Your task to perform on an android device: set the timer Image 0: 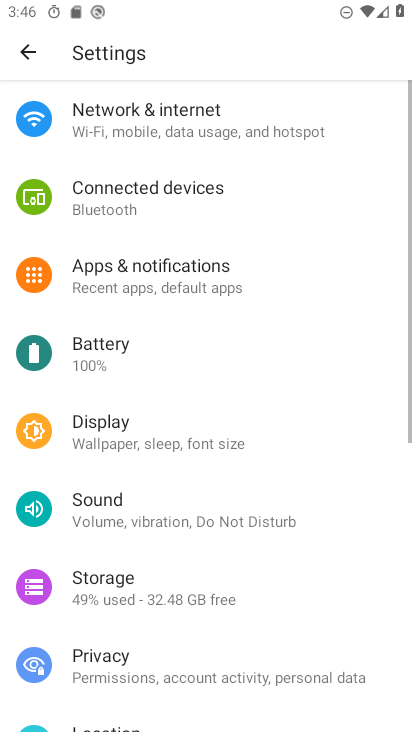
Step 0: press home button
Your task to perform on an android device: set the timer Image 1: 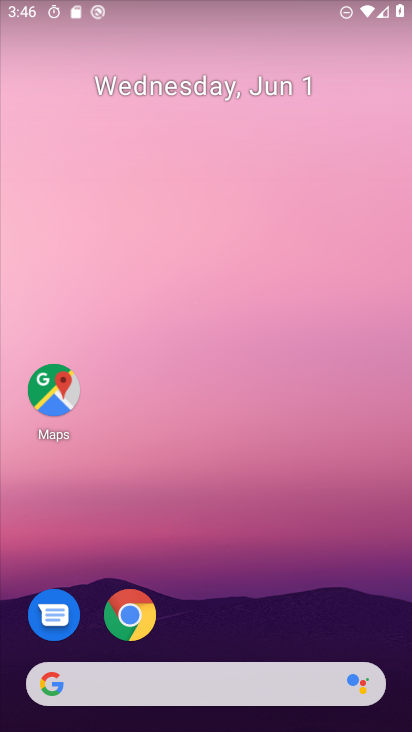
Step 1: drag from (221, 643) to (232, 46)
Your task to perform on an android device: set the timer Image 2: 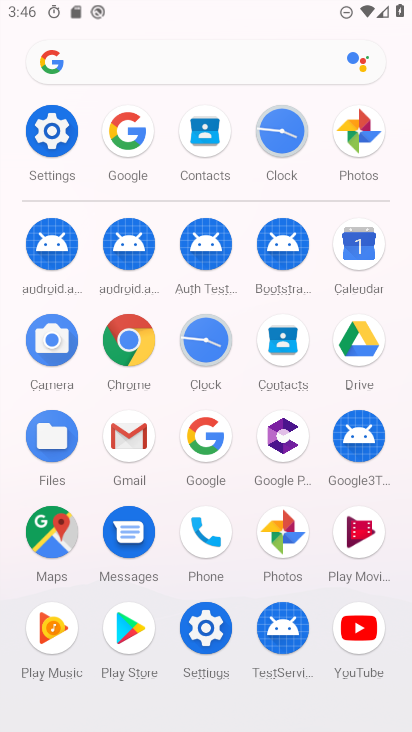
Step 2: click (208, 338)
Your task to perform on an android device: set the timer Image 3: 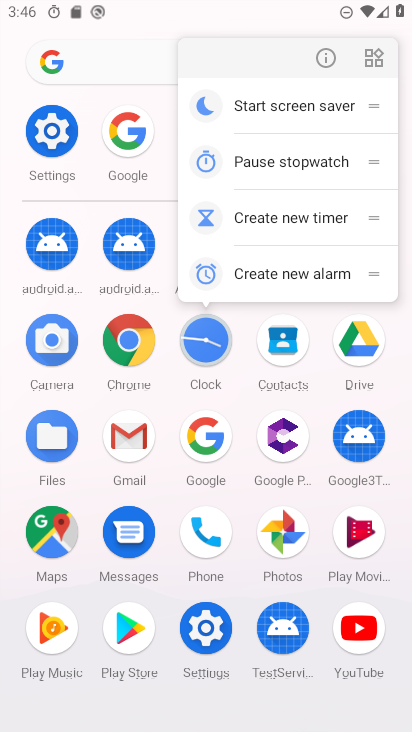
Step 3: click (204, 334)
Your task to perform on an android device: set the timer Image 4: 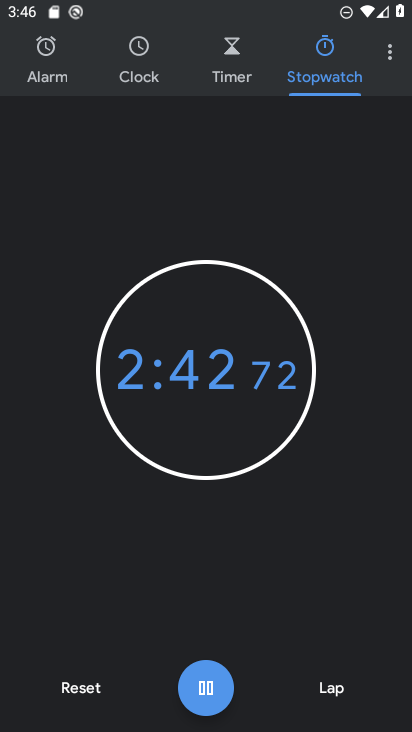
Step 4: click (86, 679)
Your task to perform on an android device: set the timer Image 5: 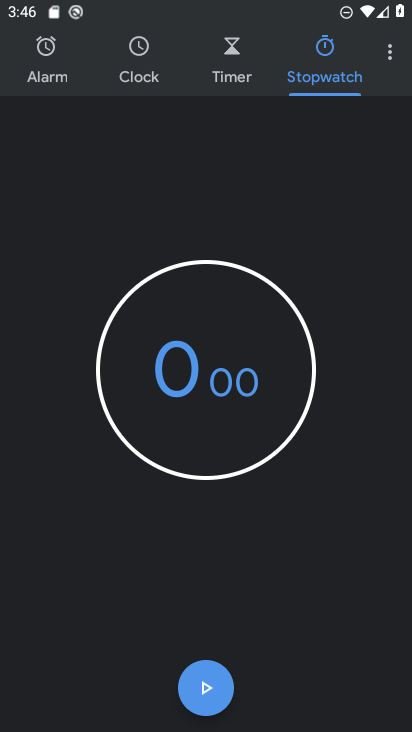
Step 5: click (227, 42)
Your task to perform on an android device: set the timer Image 6: 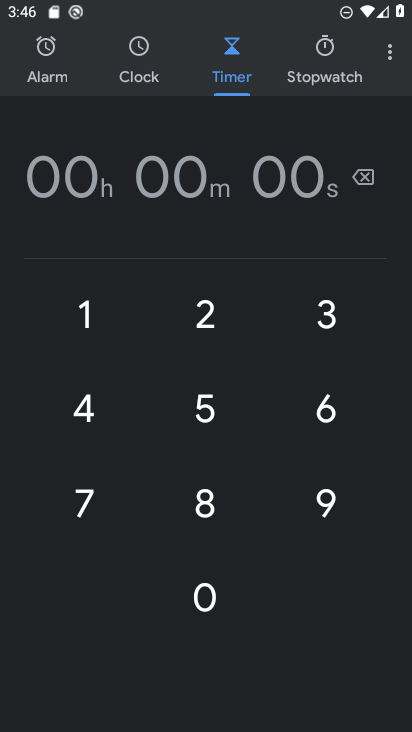
Step 6: click (211, 318)
Your task to perform on an android device: set the timer Image 7: 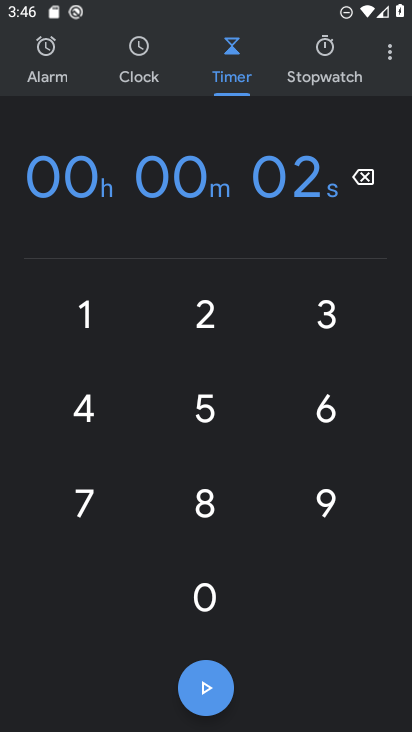
Step 7: click (210, 599)
Your task to perform on an android device: set the timer Image 8: 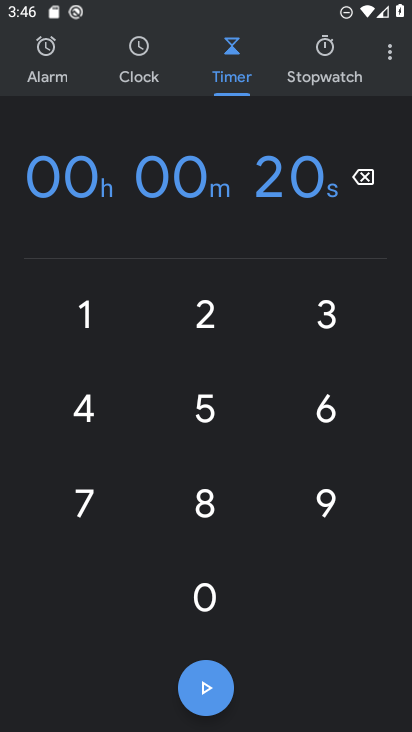
Step 8: click (210, 598)
Your task to perform on an android device: set the timer Image 9: 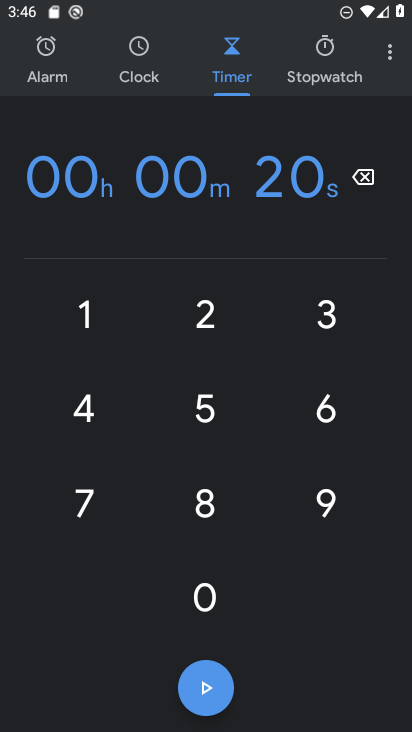
Step 9: click (210, 598)
Your task to perform on an android device: set the timer Image 10: 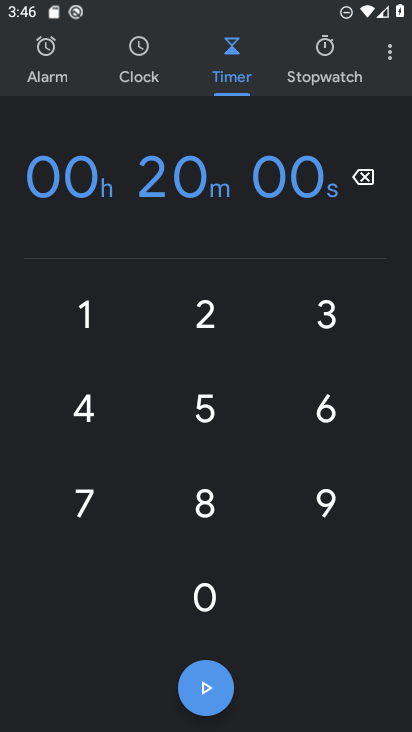
Step 10: click (202, 687)
Your task to perform on an android device: set the timer Image 11: 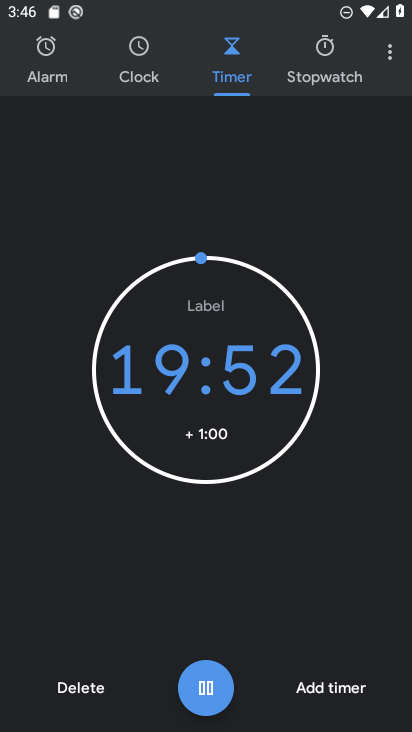
Step 11: task complete